Your task to perform on an android device: Go to battery settings Image 0: 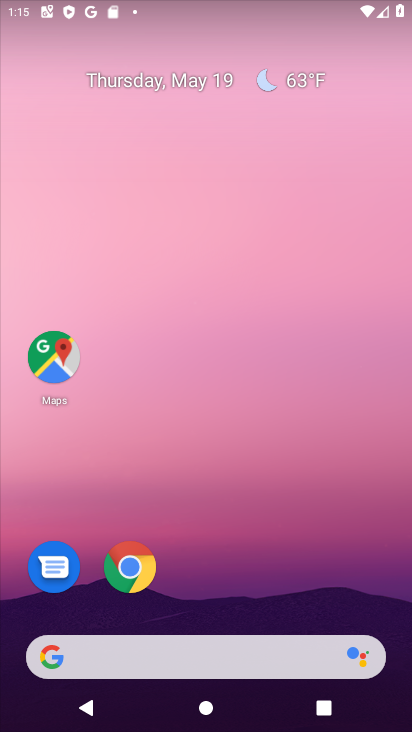
Step 0: drag from (330, 607) to (411, 3)
Your task to perform on an android device: Go to battery settings Image 1: 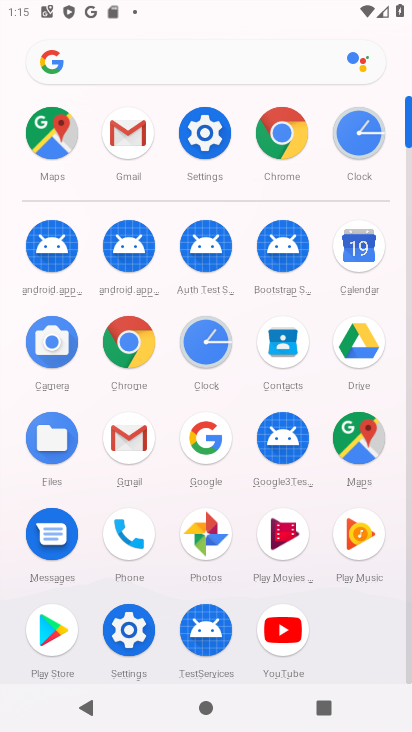
Step 1: click (216, 135)
Your task to perform on an android device: Go to battery settings Image 2: 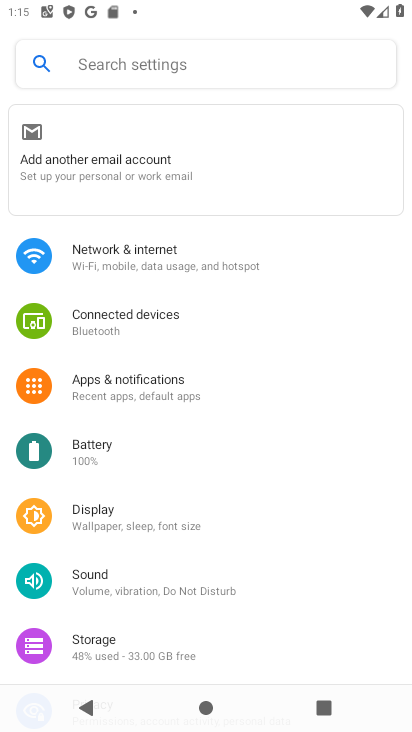
Step 2: click (110, 458)
Your task to perform on an android device: Go to battery settings Image 3: 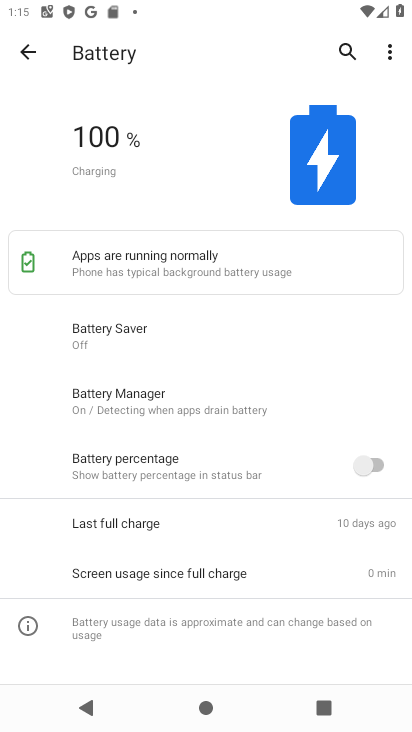
Step 3: task complete